Your task to perform on an android device: star an email in the gmail app Image 0: 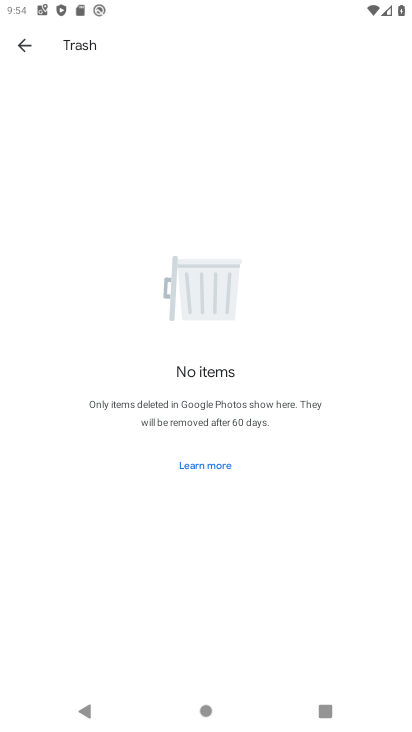
Step 0: press home button
Your task to perform on an android device: star an email in the gmail app Image 1: 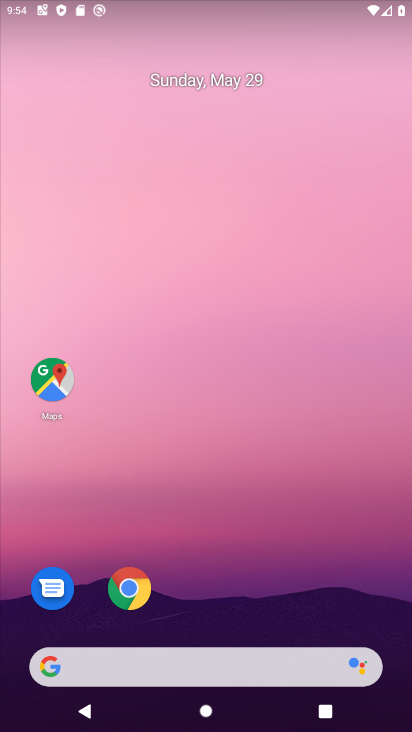
Step 1: drag from (254, 597) to (228, 204)
Your task to perform on an android device: star an email in the gmail app Image 2: 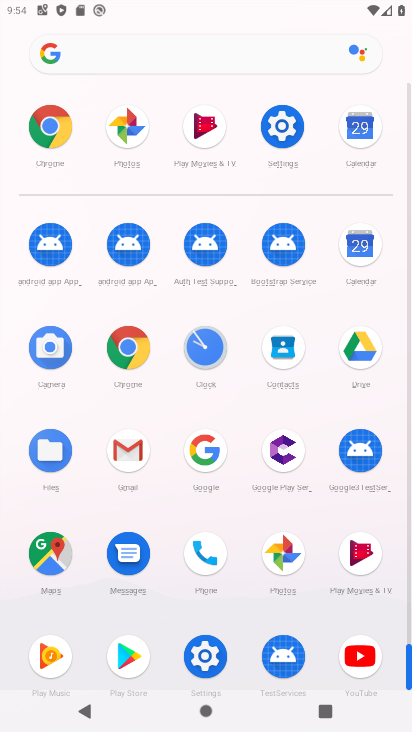
Step 2: click (127, 459)
Your task to perform on an android device: star an email in the gmail app Image 3: 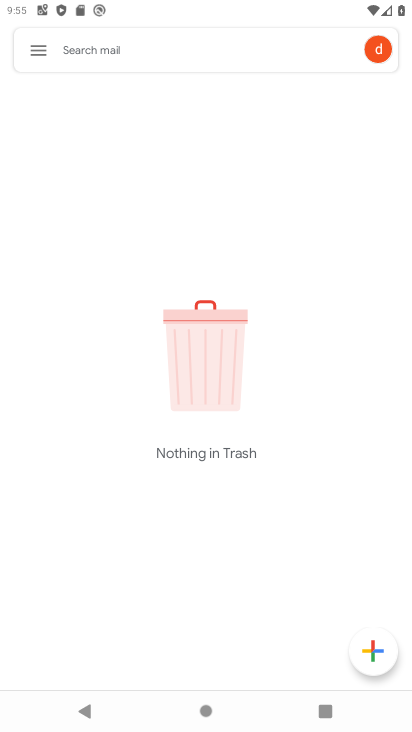
Step 3: click (21, 60)
Your task to perform on an android device: star an email in the gmail app Image 4: 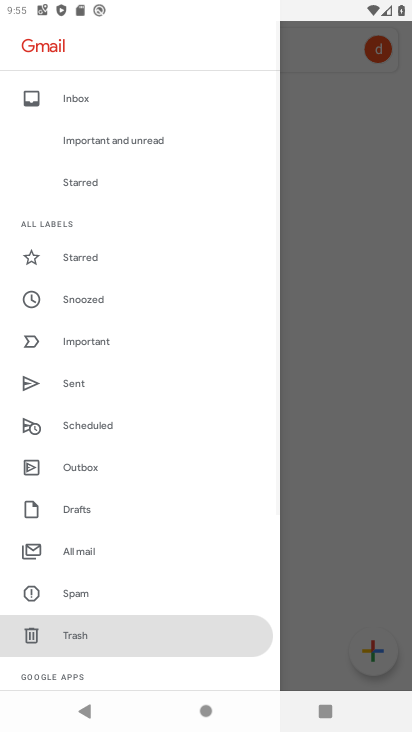
Step 4: click (78, 553)
Your task to perform on an android device: star an email in the gmail app Image 5: 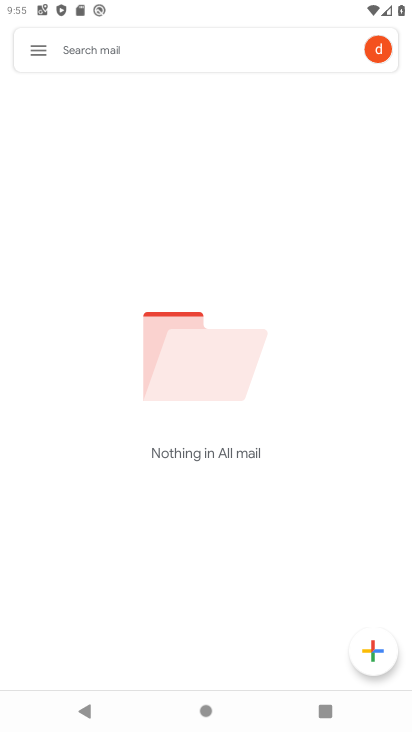
Step 5: task complete